Your task to perform on an android device: toggle location history Image 0: 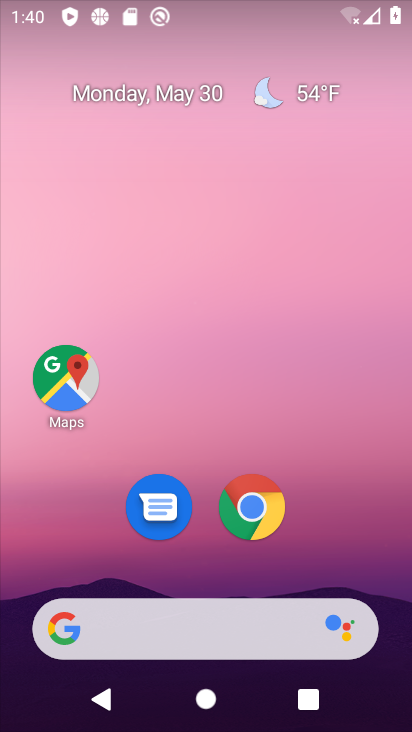
Step 0: drag from (385, 622) to (316, 42)
Your task to perform on an android device: toggle location history Image 1: 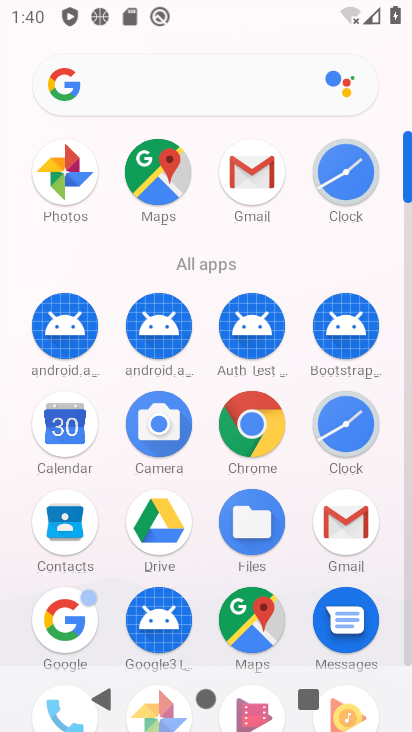
Step 1: drag from (104, 650) to (155, 171)
Your task to perform on an android device: toggle location history Image 2: 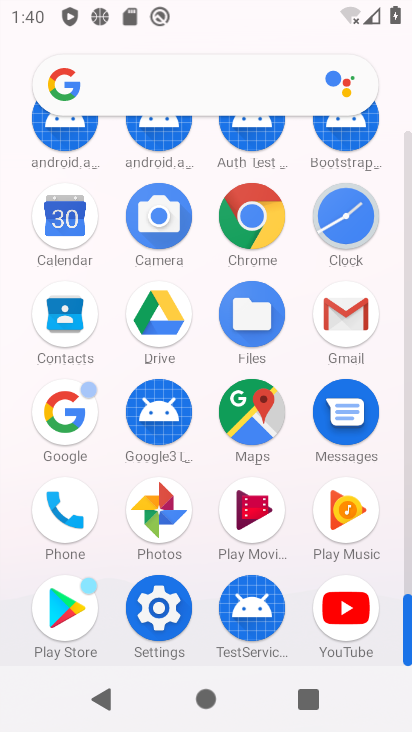
Step 2: click (169, 606)
Your task to perform on an android device: toggle location history Image 3: 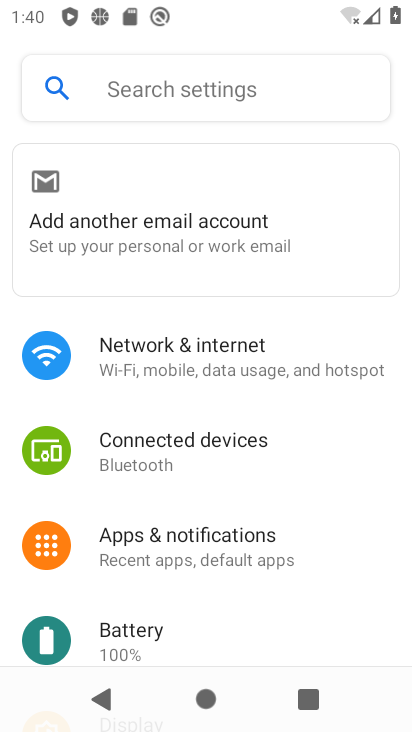
Step 3: drag from (264, 625) to (282, 266)
Your task to perform on an android device: toggle location history Image 4: 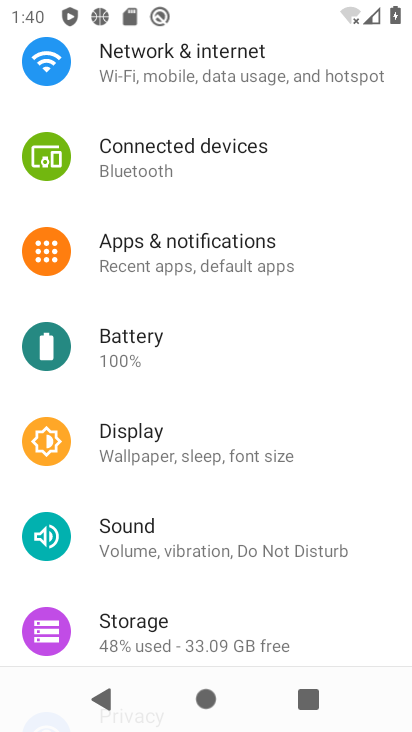
Step 4: drag from (135, 574) to (234, 118)
Your task to perform on an android device: toggle location history Image 5: 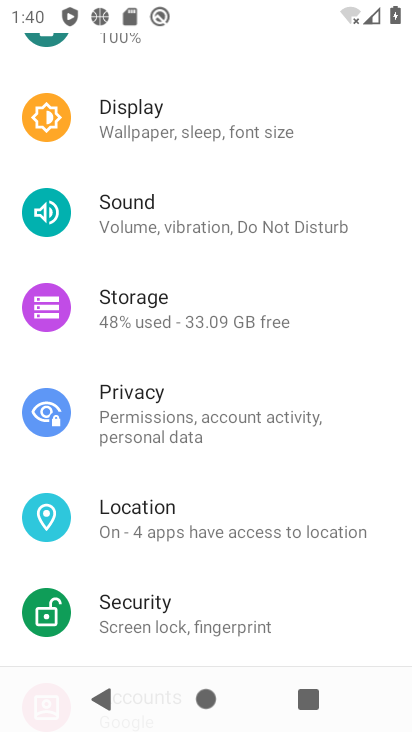
Step 5: click (127, 560)
Your task to perform on an android device: toggle location history Image 6: 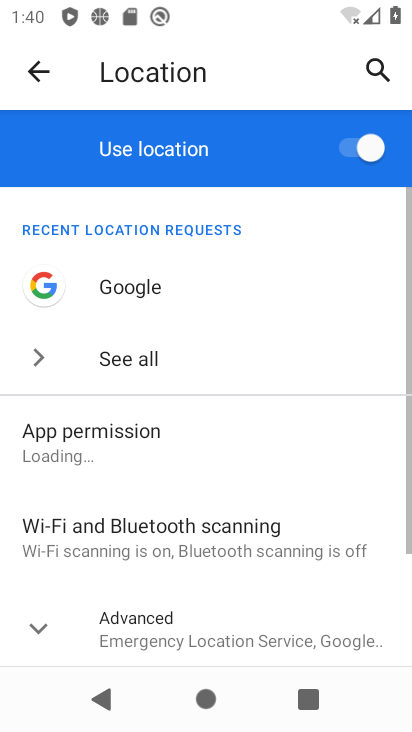
Step 6: drag from (156, 583) to (259, 213)
Your task to perform on an android device: toggle location history Image 7: 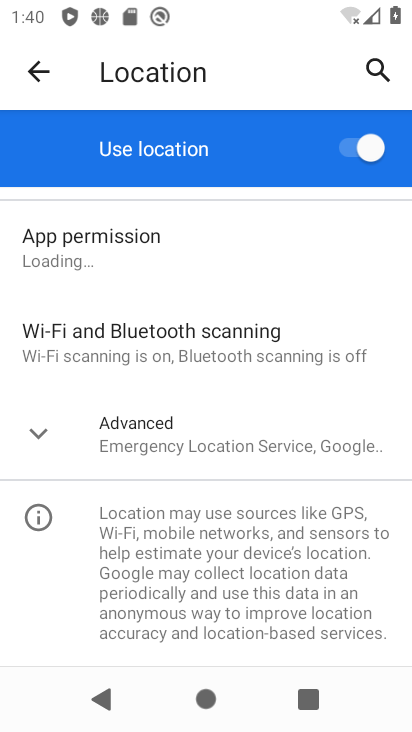
Step 7: click (192, 409)
Your task to perform on an android device: toggle location history Image 8: 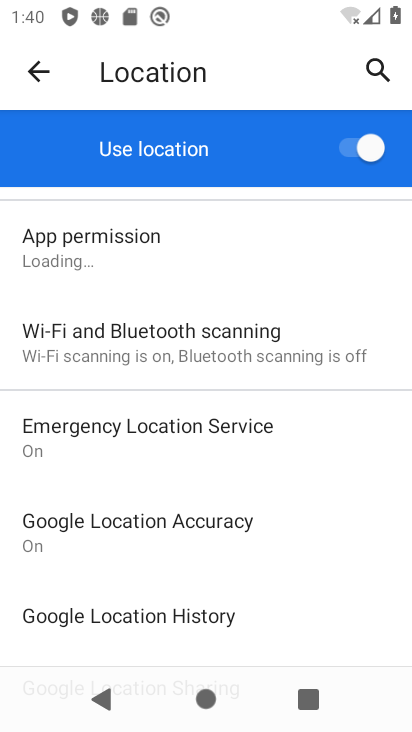
Step 8: click (130, 607)
Your task to perform on an android device: toggle location history Image 9: 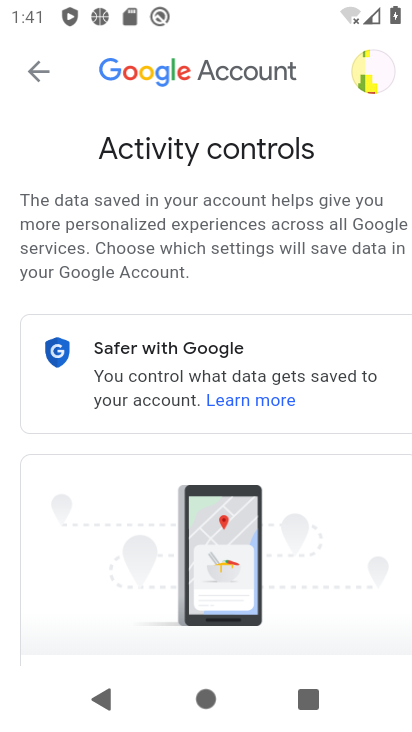
Step 9: click (130, 606)
Your task to perform on an android device: toggle location history Image 10: 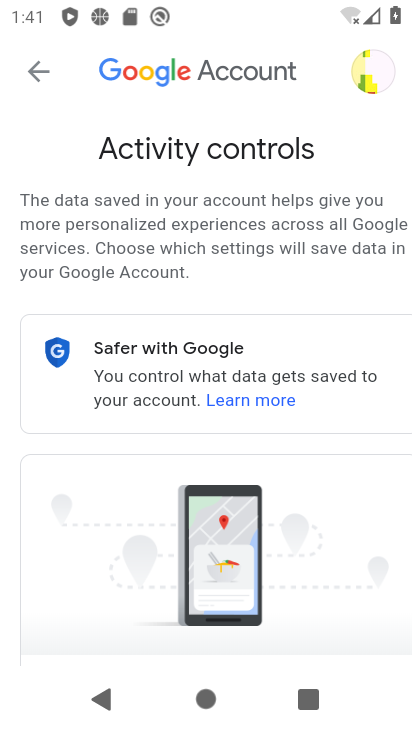
Step 10: drag from (349, 595) to (348, 148)
Your task to perform on an android device: toggle location history Image 11: 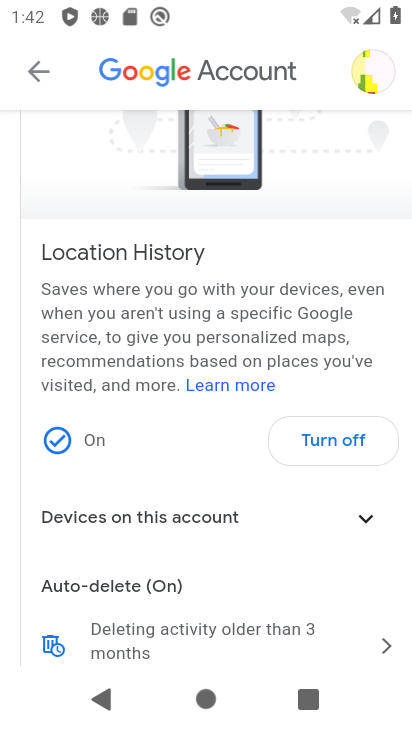
Step 11: click (320, 456)
Your task to perform on an android device: toggle location history Image 12: 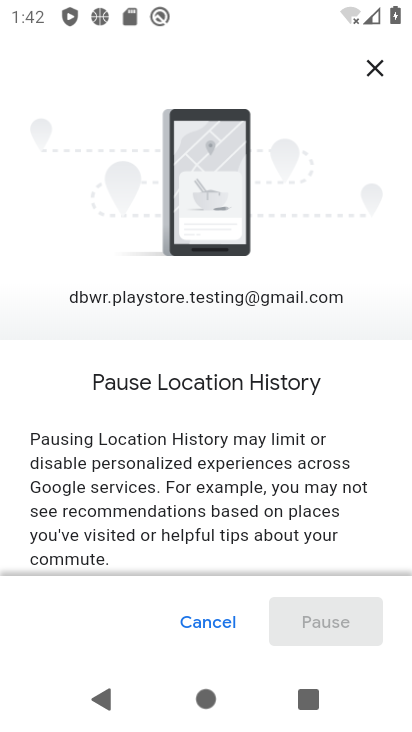
Step 12: task complete